Your task to perform on an android device: Go to Android settings Image 0: 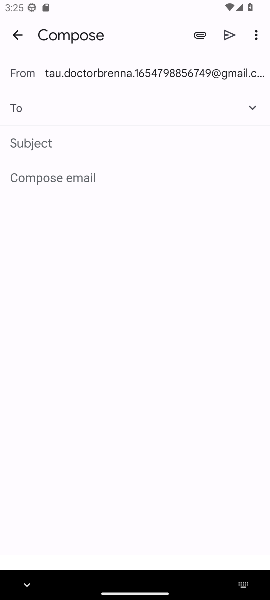
Step 0: press home button
Your task to perform on an android device: Go to Android settings Image 1: 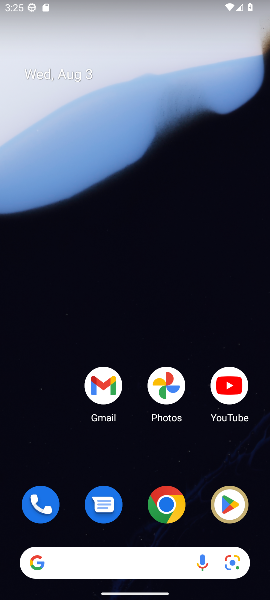
Step 1: drag from (121, 466) to (128, 6)
Your task to perform on an android device: Go to Android settings Image 2: 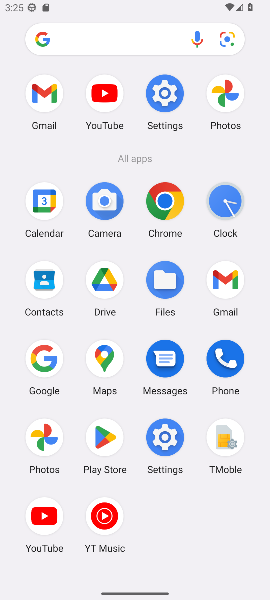
Step 2: click (175, 109)
Your task to perform on an android device: Go to Android settings Image 3: 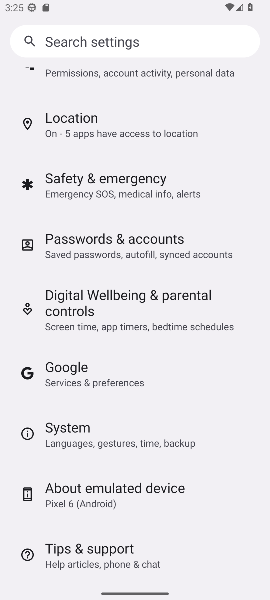
Step 3: drag from (108, 504) to (109, 325)
Your task to perform on an android device: Go to Android settings Image 4: 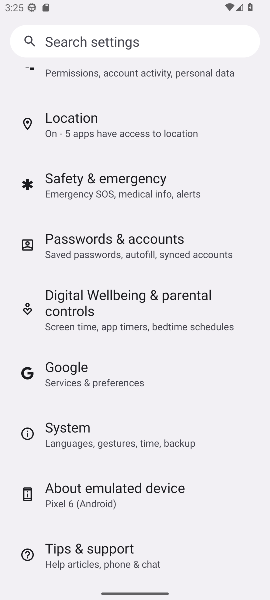
Step 4: click (92, 510)
Your task to perform on an android device: Go to Android settings Image 5: 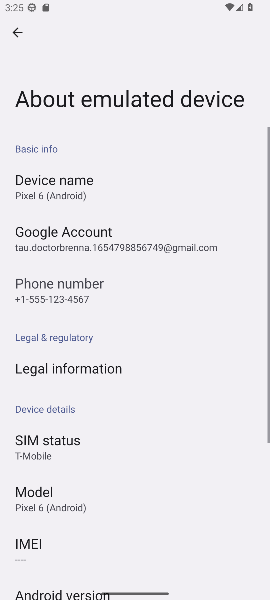
Step 5: drag from (86, 459) to (92, 250)
Your task to perform on an android device: Go to Android settings Image 6: 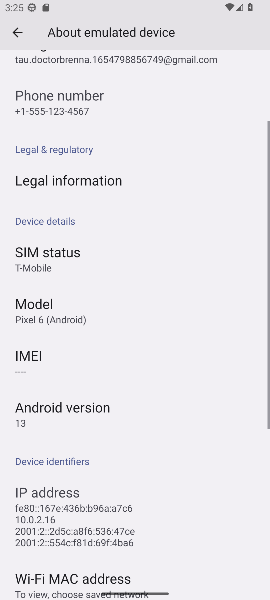
Step 6: click (94, 411)
Your task to perform on an android device: Go to Android settings Image 7: 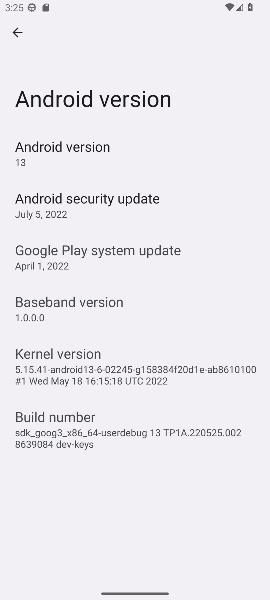
Step 7: task complete